Your task to perform on an android device: Open the phone app and click the voicemail tab. Image 0: 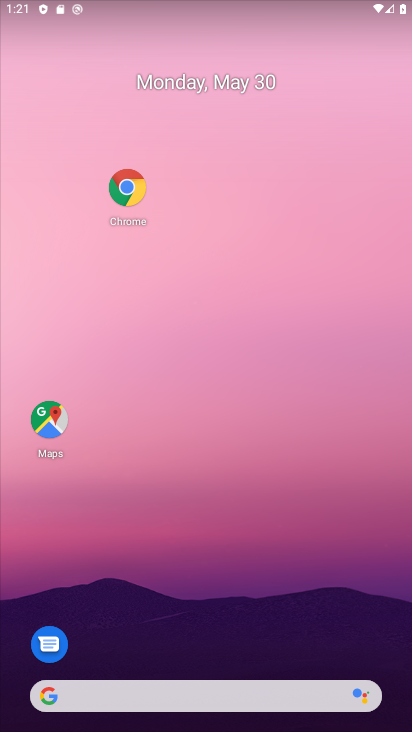
Step 0: drag from (304, 645) to (332, 251)
Your task to perform on an android device: Open the phone app and click the voicemail tab. Image 1: 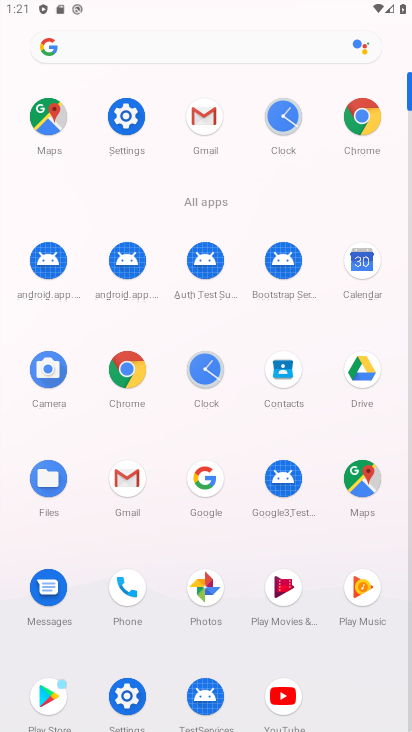
Step 1: click (107, 564)
Your task to perform on an android device: Open the phone app and click the voicemail tab. Image 2: 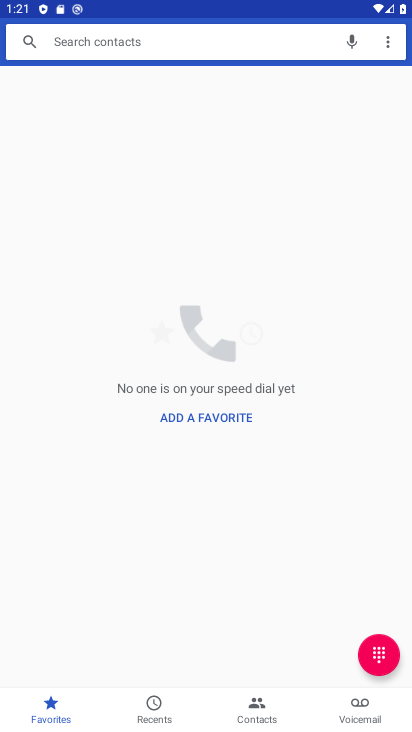
Step 2: click (352, 731)
Your task to perform on an android device: Open the phone app and click the voicemail tab. Image 3: 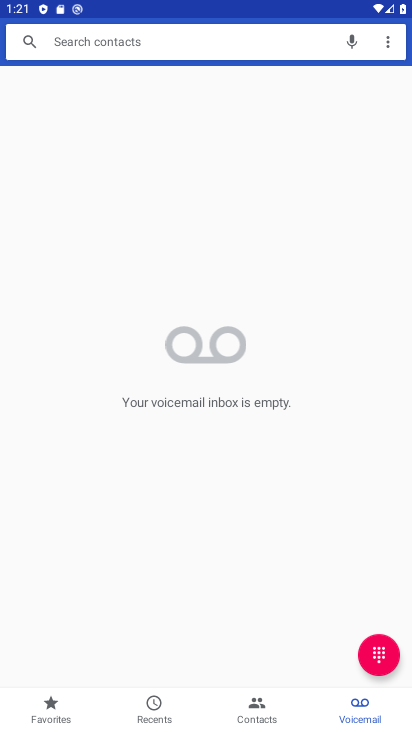
Step 3: task complete